Your task to perform on an android device: Open Reddit.com Image 0: 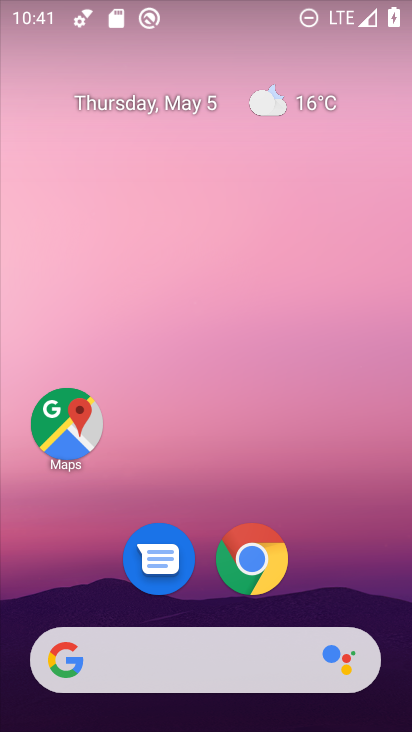
Step 0: drag from (394, 673) to (282, 78)
Your task to perform on an android device: Open Reddit.com Image 1: 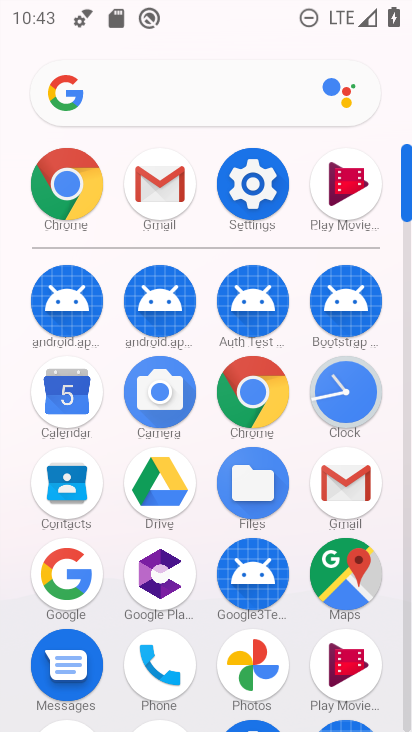
Step 1: click (80, 193)
Your task to perform on an android device: Open Reddit.com Image 2: 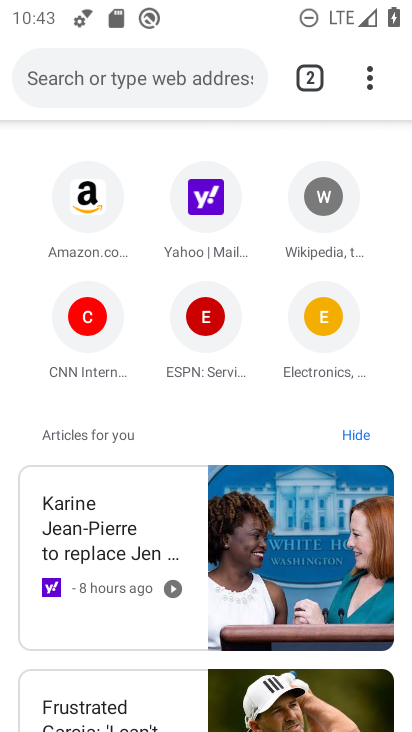
Step 2: click (187, 89)
Your task to perform on an android device: Open Reddit.com Image 3: 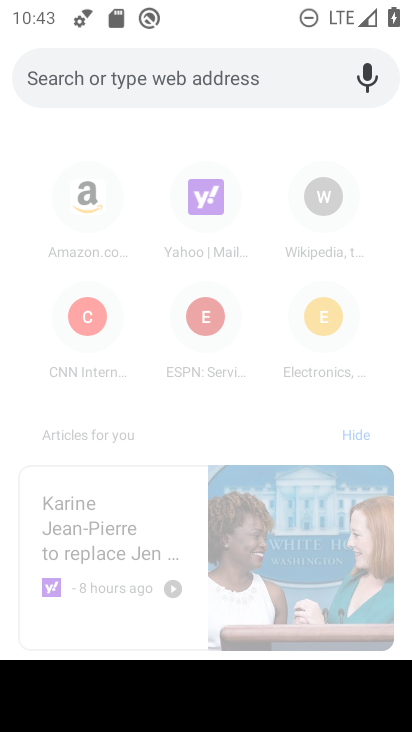
Step 3: type "reddit.com"
Your task to perform on an android device: Open Reddit.com Image 4: 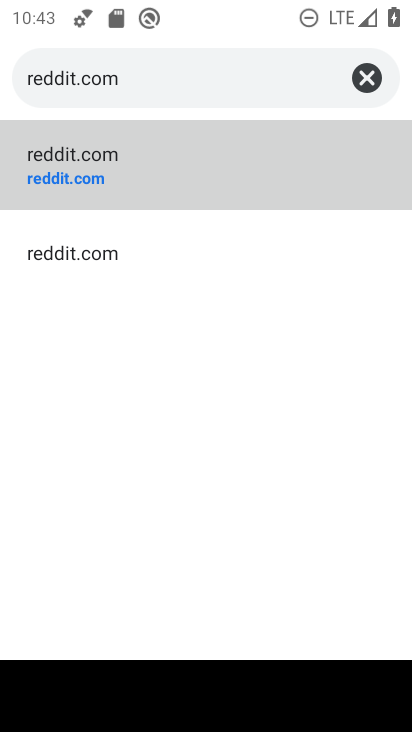
Step 4: click (187, 158)
Your task to perform on an android device: Open Reddit.com Image 5: 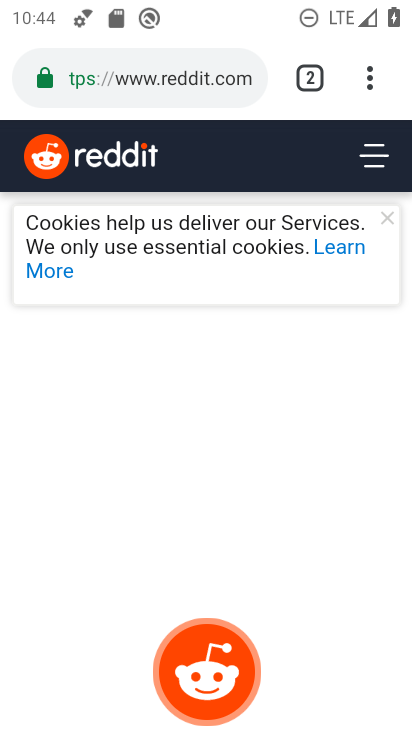
Step 5: task complete